Your task to perform on an android device: set an alarm Image 0: 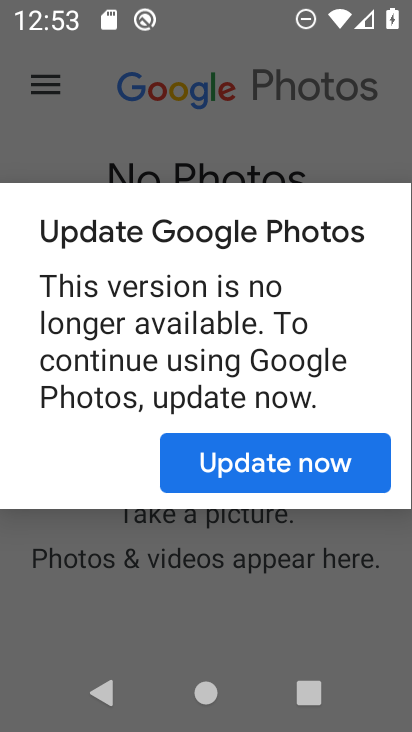
Step 0: press home button
Your task to perform on an android device: set an alarm Image 1: 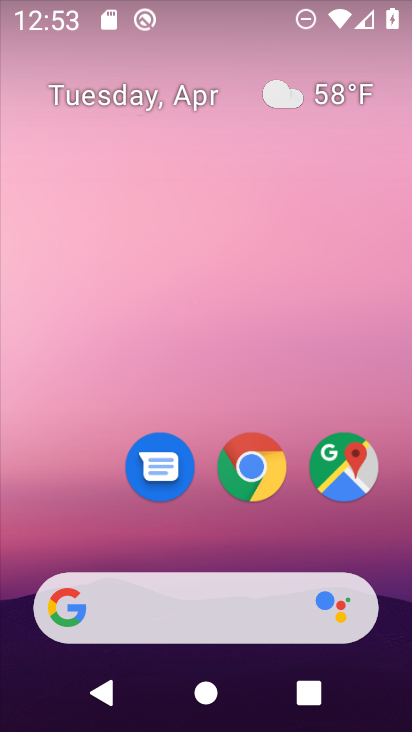
Step 1: drag from (205, 390) to (190, 5)
Your task to perform on an android device: set an alarm Image 2: 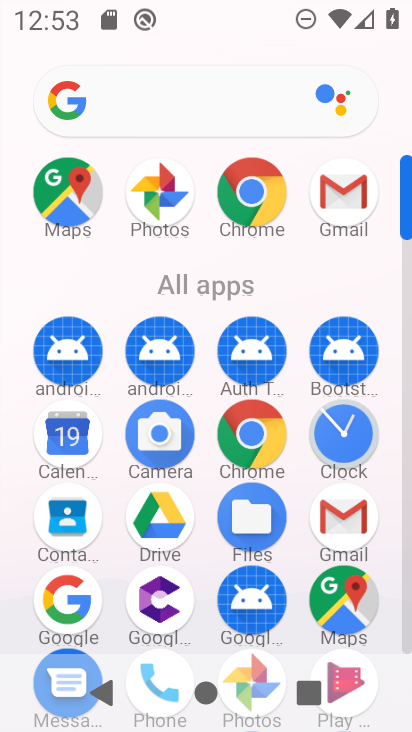
Step 2: click (341, 438)
Your task to perform on an android device: set an alarm Image 3: 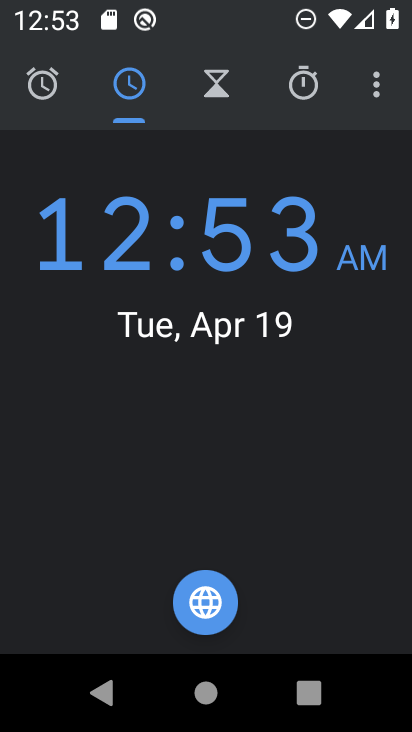
Step 3: click (55, 76)
Your task to perform on an android device: set an alarm Image 4: 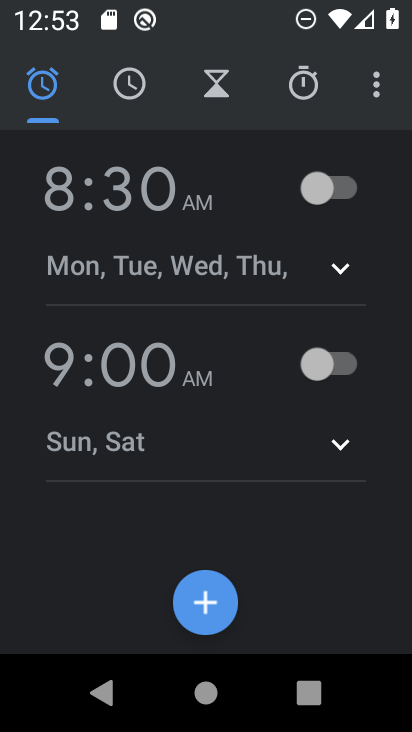
Step 4: click (330, 208)
Your task to perform on an android device: set an alarm Image 5: 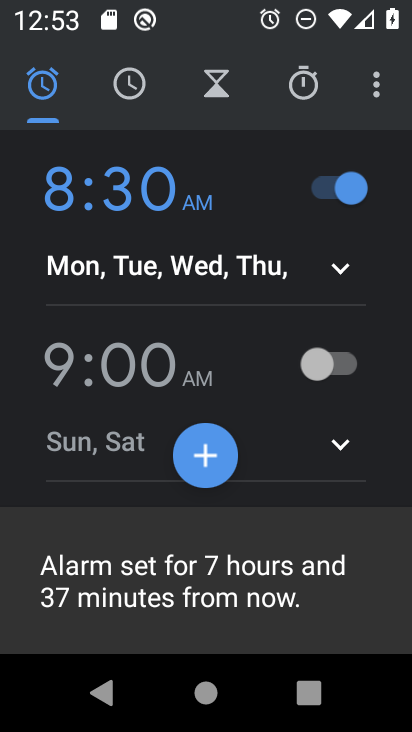
Step 5: task complete